Your task to perform on an android device: Find coffee shops on Maps Image 0: 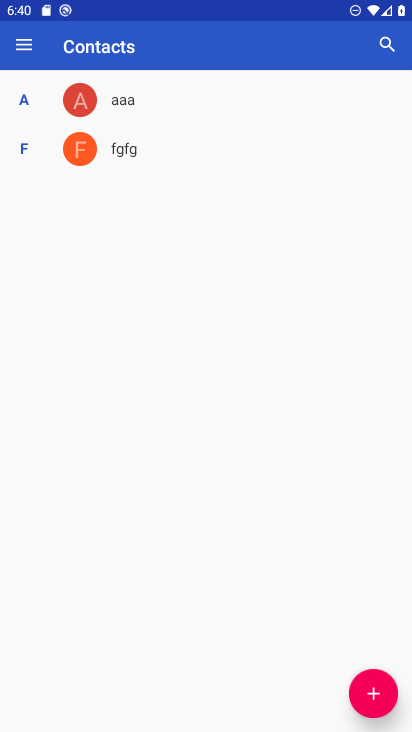
Step 0: press home button
Your task to perform on an android device: Find coffee shops on Maps Image 1: 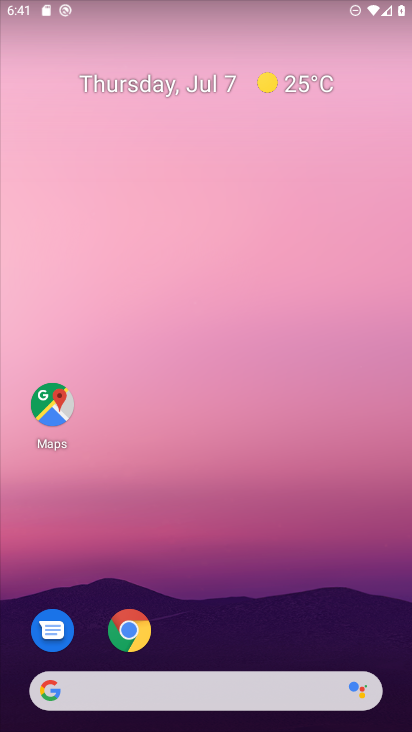
Step 1: click (49, 414)
Your task to perform on an android device: Find coffee shops on Maps Image 2: 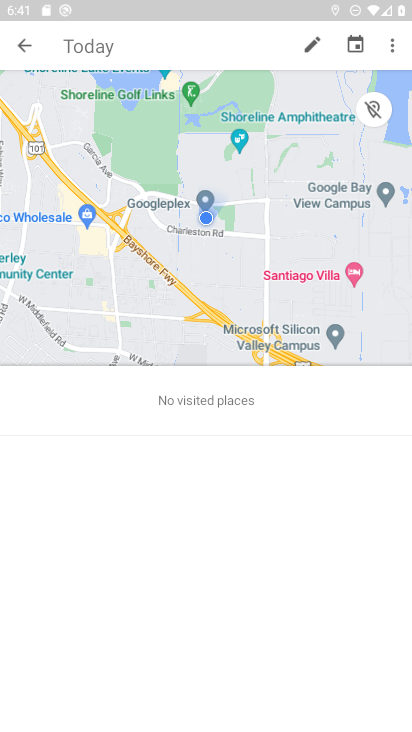
Step 2: click (23, 46)
Your task to perform on an android device: Find coffee shops on Maps Image 3: 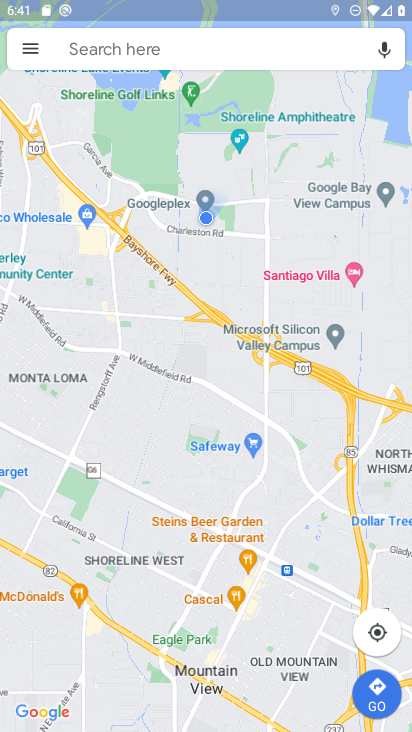
Step 3: click (224, 47)
Your task to perform on an android device: Find coffee shops on Maps Image 4: 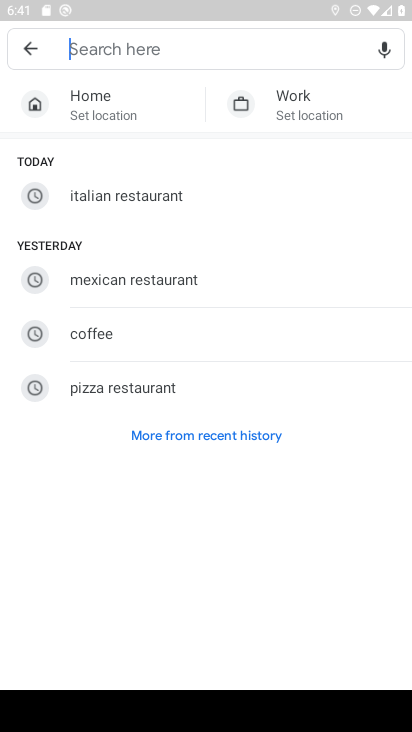
Step 4: type "coffee shops"
Your task to perform on an android device: Find coffee shops on Maps Image 5: 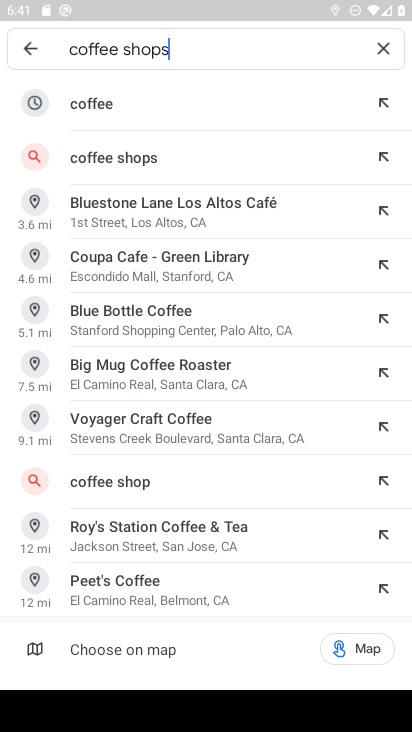
Step 5: click (127, 156)
Your task to perform on an android device: Find coffee shops on Maps Image 6: 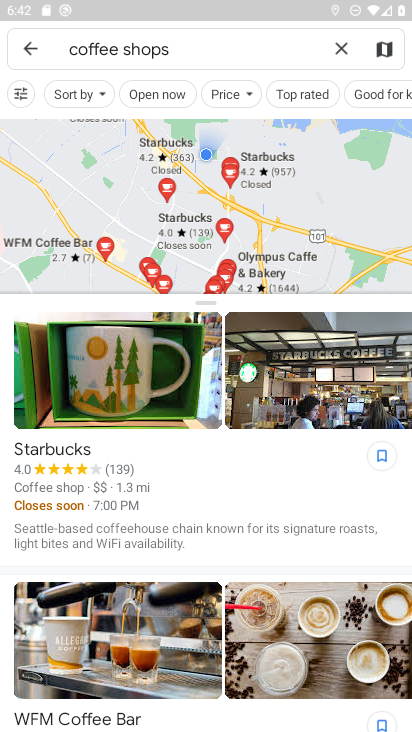
Step 6: task complete